Your task to perform on an android device: turn on bluetooth scan Image 0: 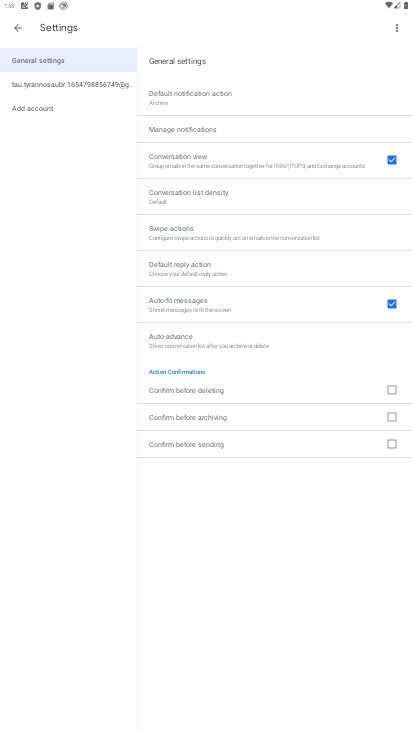
Step 0: press home button
Your task to perform on an android device: turn on bluetooth scan Image 1: 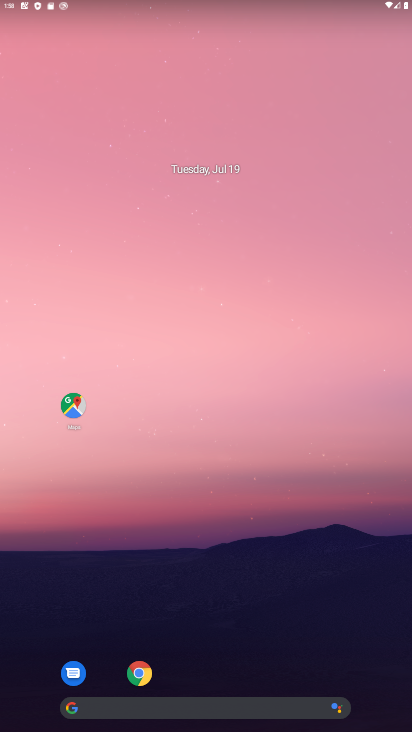
Step 1: drag from (207, 709) to (232, 288)
Your task to perform on an android device: turn on bluetooth scan Image 2: 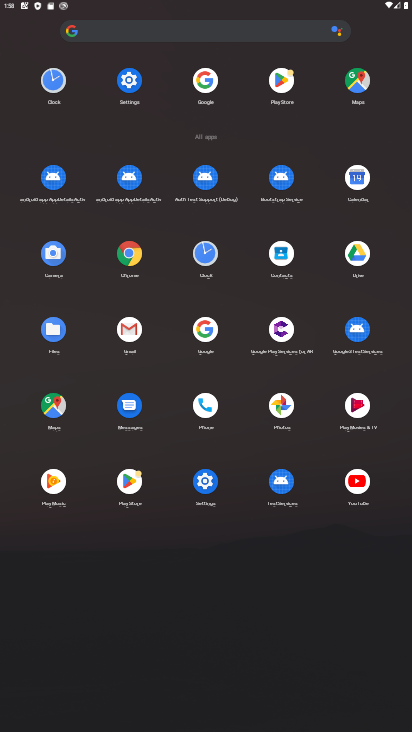
Step 2: click (129, 79)
Your task to perform on an android device: turn on bluetooth scan Image 3: 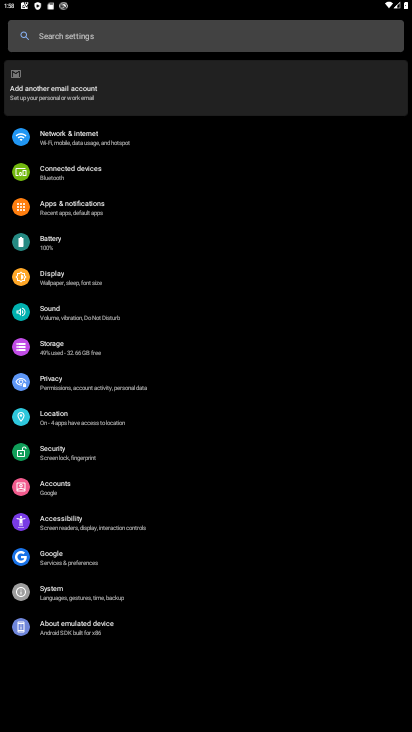
Step 3: click (61, 416)
Your task to perform on an android device: turn on bluetooth scan Image 4: 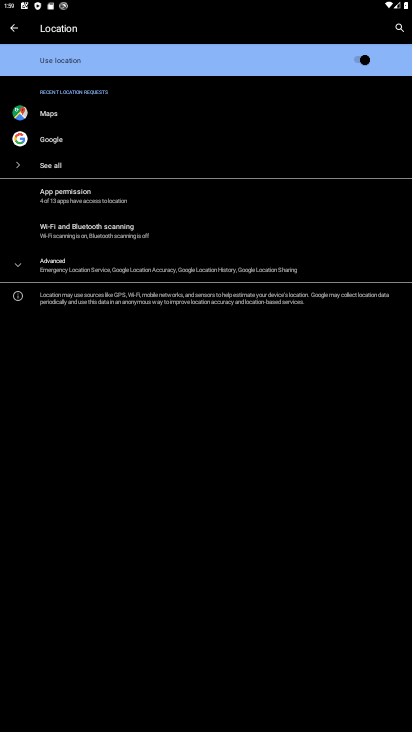
Step 4: click (96, 233)
Your task to perform on an android device: turn on bluetooth scan Image 5: 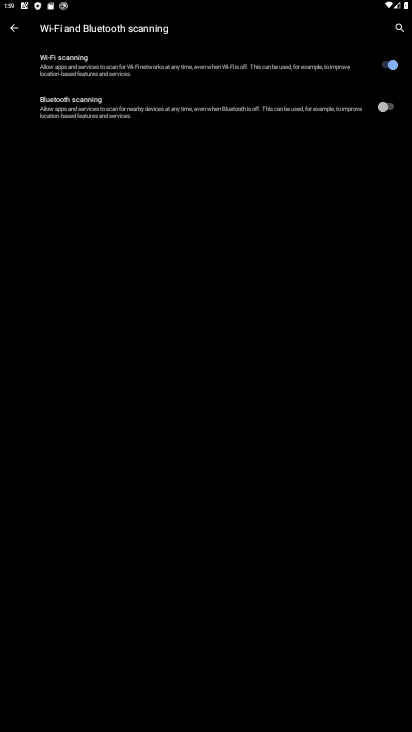
Step 5: click (385, 112)
Your task to perform on an android device: turn on bluetooth scan Image 6: 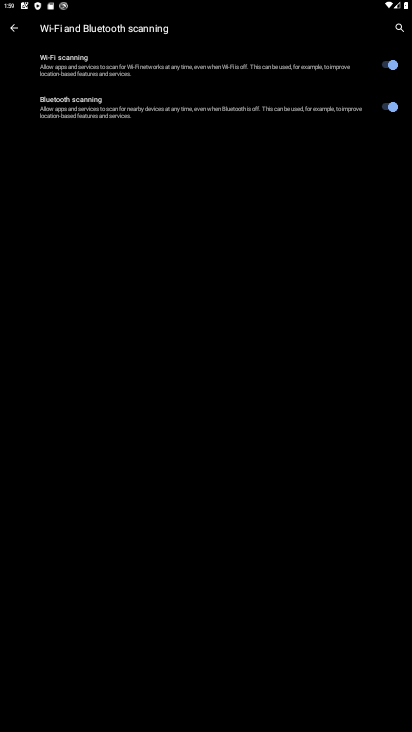
Step 6: task complete